Your task to perform on an android device: turn off priority inbox in the gmail app Image 0: 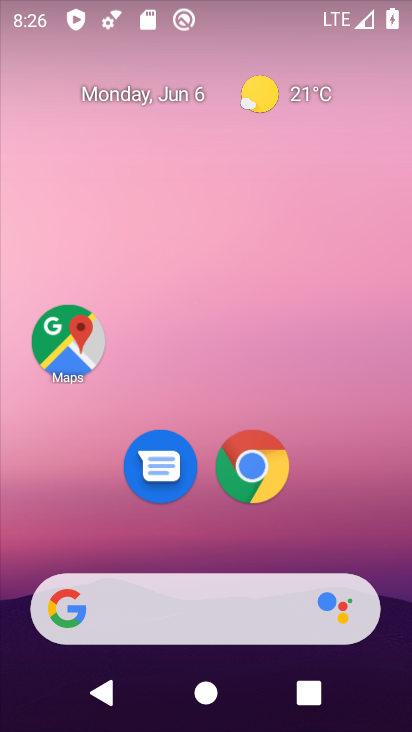
Step 0: drag from (206, 505) to (237, 266)
Your task to perform on an android device: turn off priority inbox in the gmail app Image 1: 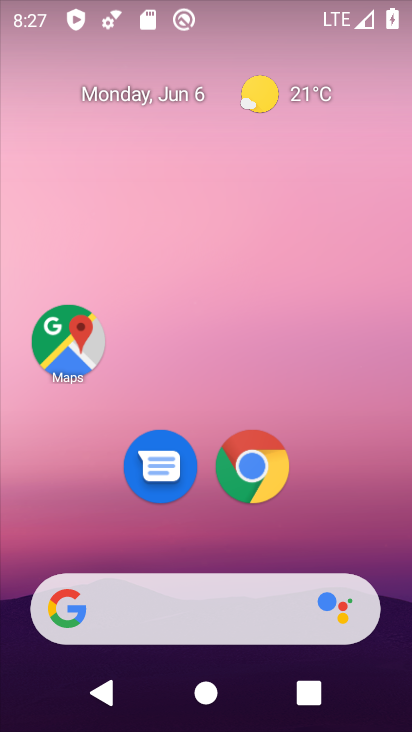
Step 1: drag from (201, 511) to (213, 85)
Your task to perform on an android device: turn off priority inbox in the gmail app Image 2: 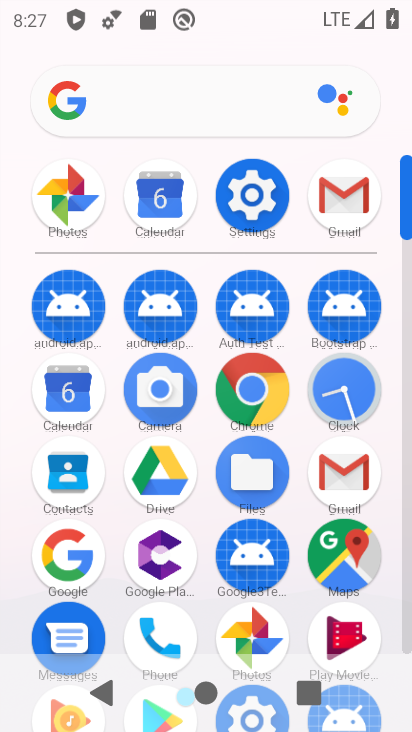
Step 2: click (331, 476)
Your task to perform on an android device: turn off priority inbox in the gmail app Image 3: 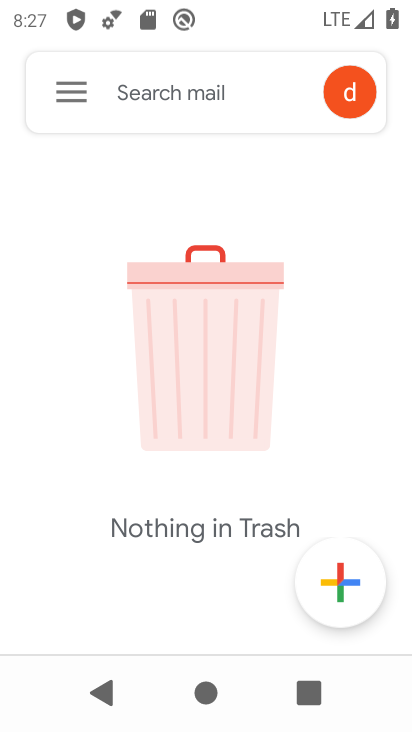
Step 3: click (89, 85)
Your task to perform on an android device: turn off priority inbox in the gmail app Image 4: 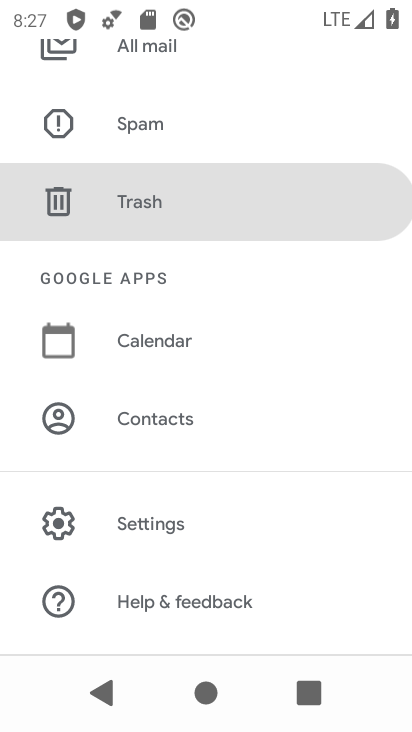
Step 4: drag from (249, 588) to (281, 115)
Your task to perform on an android device: turn off priority inbox in the gmail app Image 5: 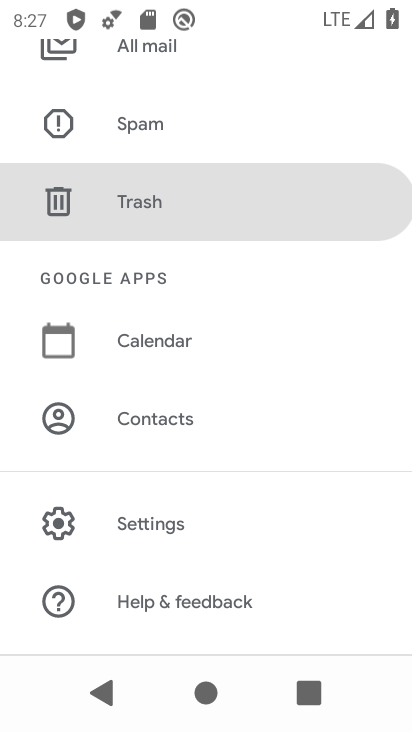
Step 5: click (203, 517)
Your task to perform on an android device: turn off priority inbox in the gmail app Image 6: 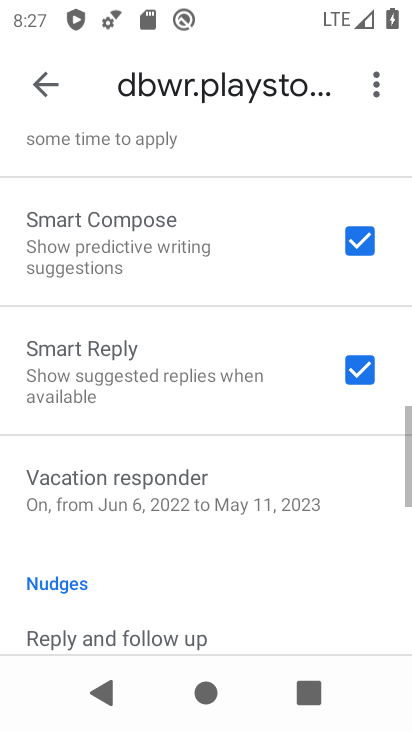
Step 6: drag from (195, 514) to (274, 130)
Your task to perform on an android device: turn off priority inbox in the gmail app Image 7: 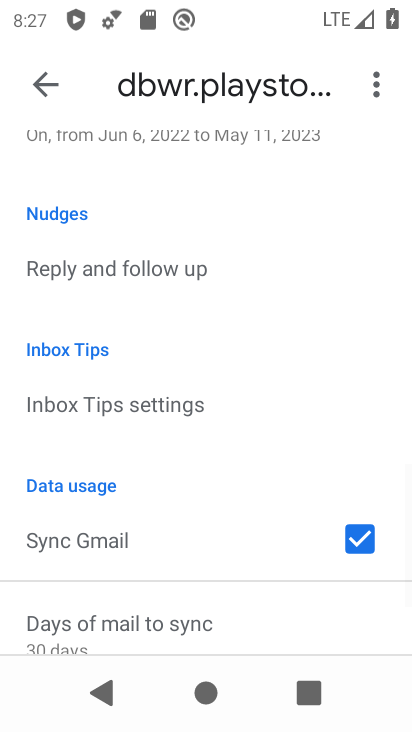
Step 7: drag from (283, 273) to (261, 718)
Your task to perform on an android device: turn off priority inbox in the gmail app Image 8: 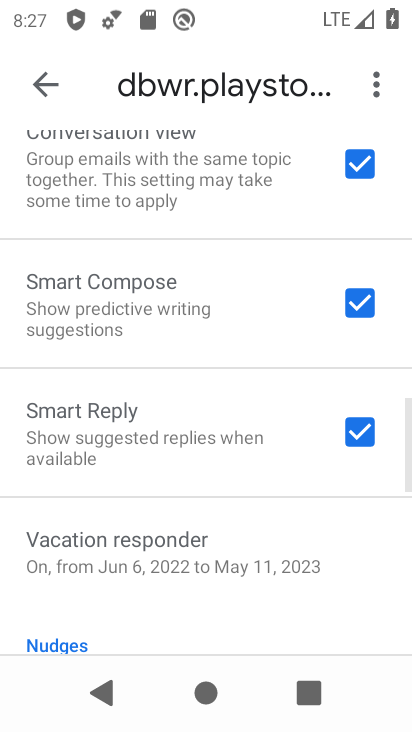
Step 8: drag from (115, 208) to (145, 724)
Your task to perform on an android device: turn off priority inbox in the gmail app Image 9: 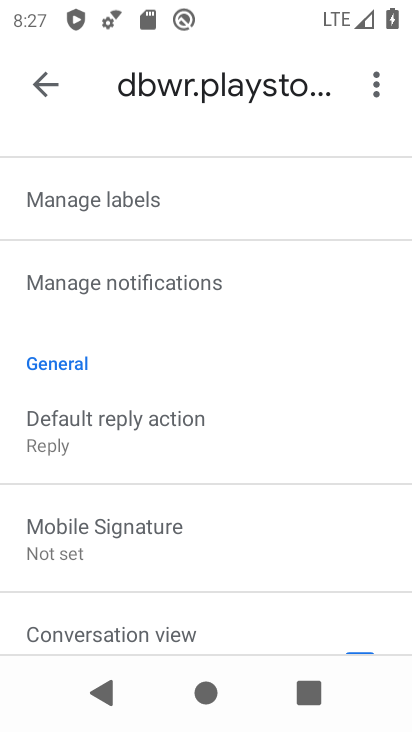
Step 9: drag from (200, 214) to (250, 704)
Your task to perform on an android device: turn off priority inbox in the gmail app Image 10: 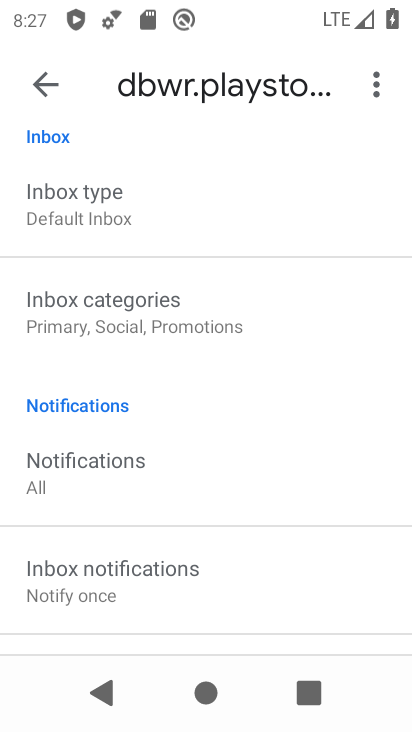
Step 10: drag from (177, 260) to (242, 648)
Your task to perform on an android device: turn off priority inbox in the gmail app Image 11: 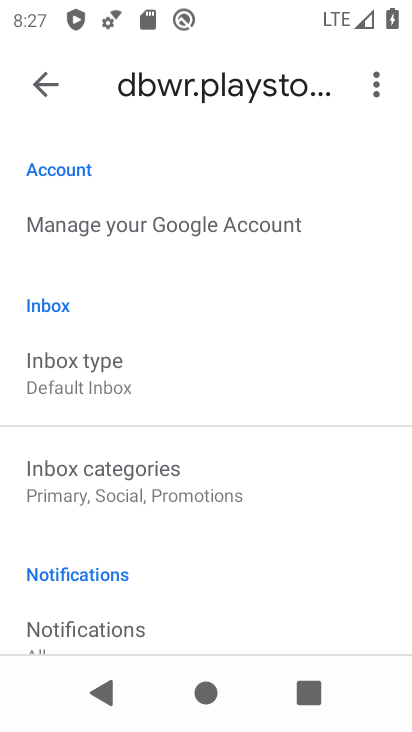
Step 11: click (132, 399)
Your task to perform on an android device: turn off priority inbox in the gmail app Image 12: 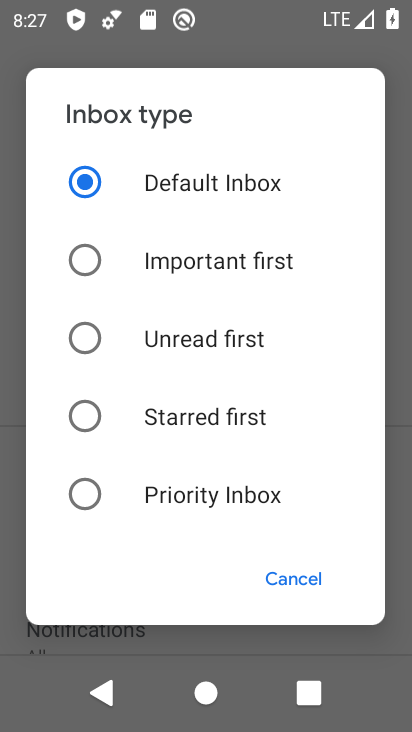
Step 12: click (187, 490)
Your task to perform on an android device: turn off priority inbox in the gmail app Image 13: 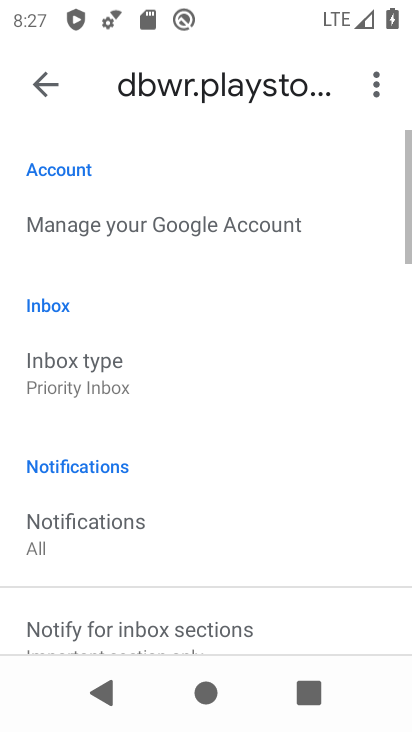
Step 13: task complete